Your task to perform on an android device: open device folders in google photos Image 0: 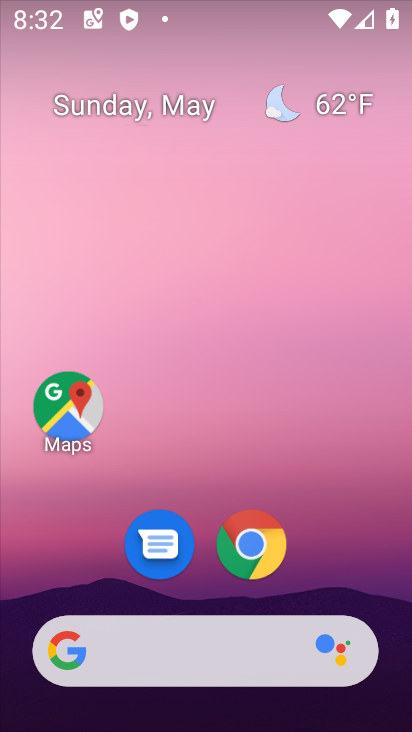
Step 0: drag from (302, 566) to (140, 95)
Your task to perform on an android device: open device folders in google photos Image 1: 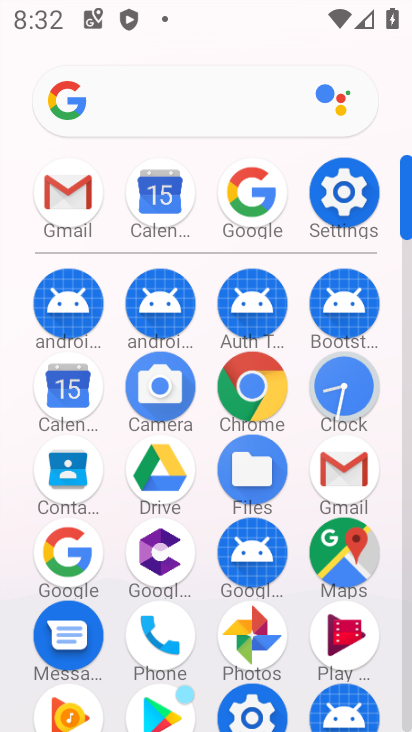
Step 1: click (243, 641)
Your task to perform on an android device: open device folders in google photos Image 2: 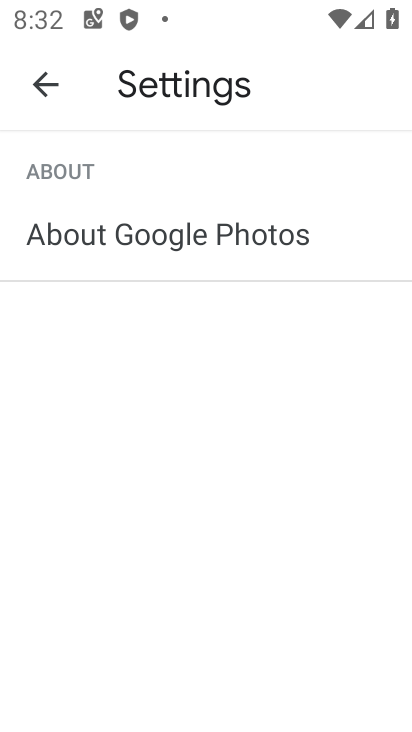
Step 2: click (44, 89)
Your task to perform on an android device: open device folders in google photos Image 3: 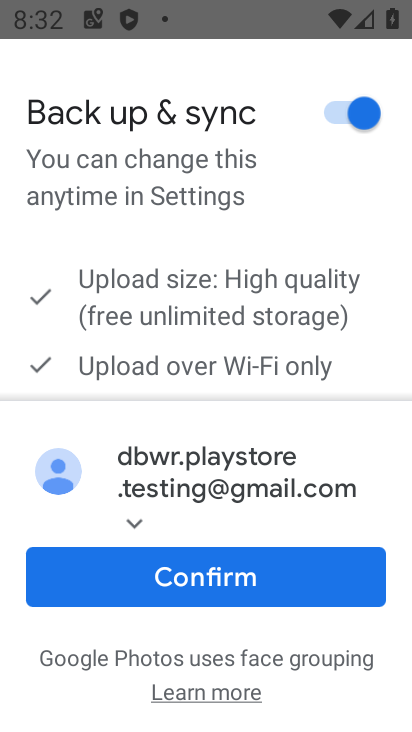
Step 3: click (222, 585)
Your task to perform on an android device: open device folders in google photos Image 4: 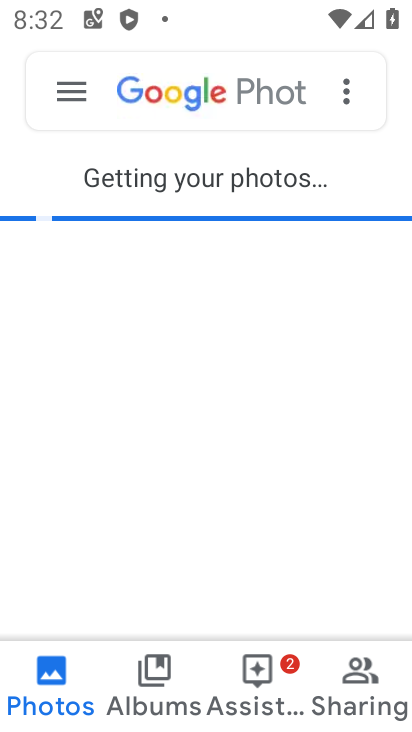
Step 4: click (94, 109)
Your task to perform on an android device: open device folders in google photos Image 5: 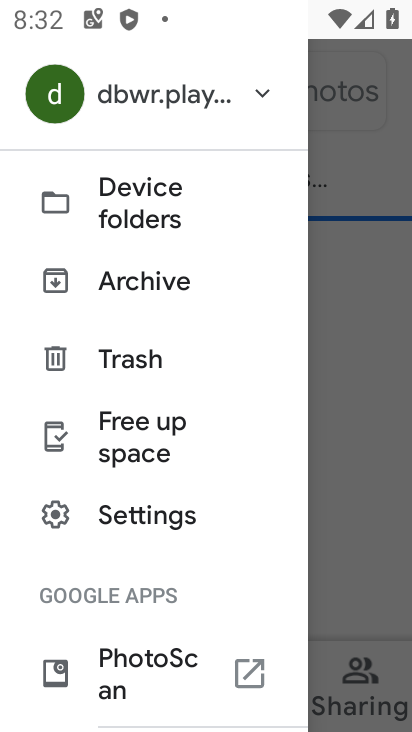
Step 5: click (129, 211)
Your task to perform on an android device: open device folders in google photos Image 6: 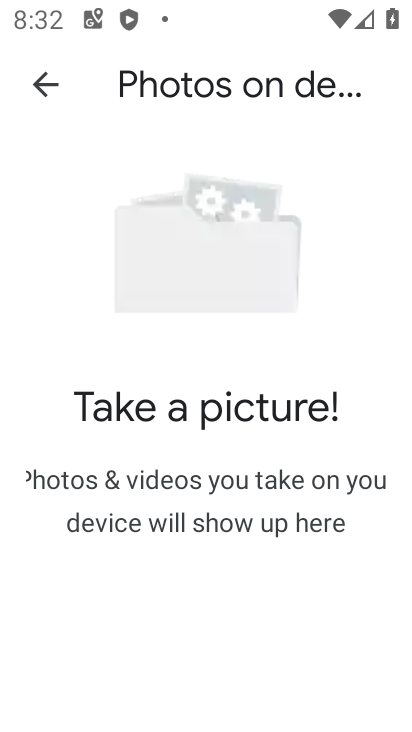
Step 6: task complete